Your task to perform on an android device: Search for pizza restaurants on Maps Image 0: 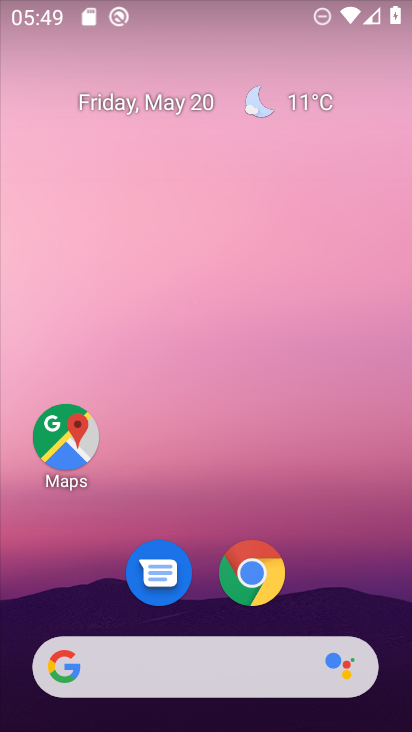
Step 0: click (66, 460)
Your task to perform on an android device: Search for pizza restaurants on Maps Image 1: 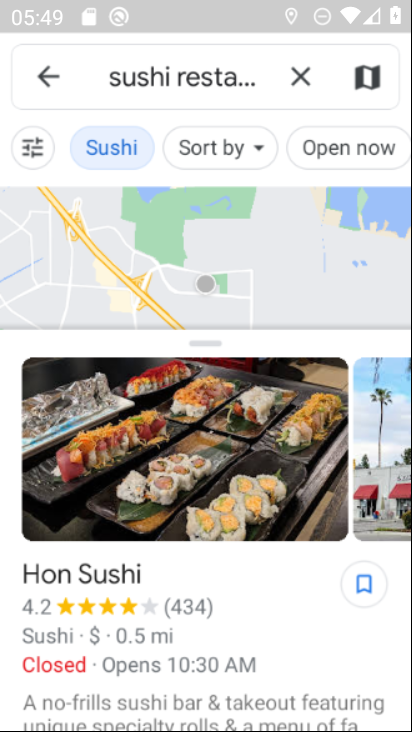
Step 1: click (302, 64)
Your task to perform on an android device: Search for pizza restaurants on Maps Image 2: 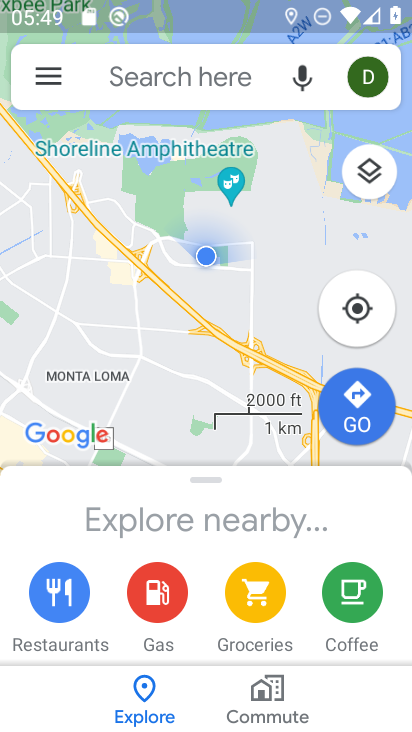
Step 2: click (184, 78)
Your task to perform on an android device: Search for pizza restaurants on Maps Image 3: 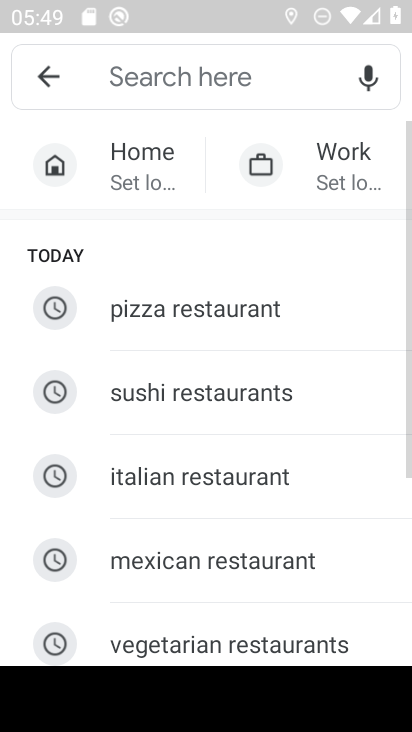
Step 3: click (215, 300)
Your task to perform on an android device: Search for pizza restaurants on Maps Image 4: 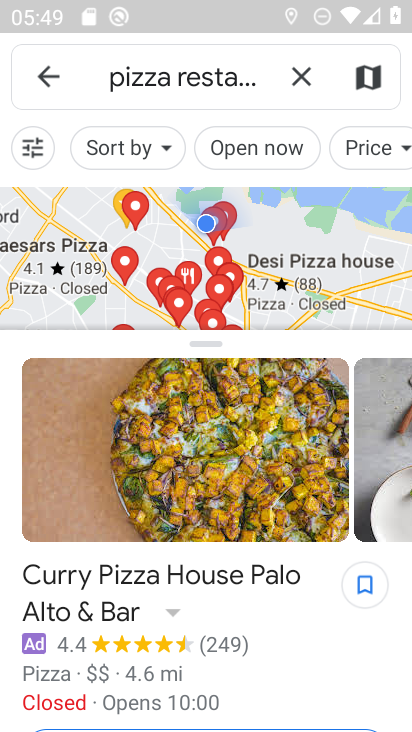
Step 4: task complete